Your task to perform on an android device: toggle javascript in the chrome app Image 0: 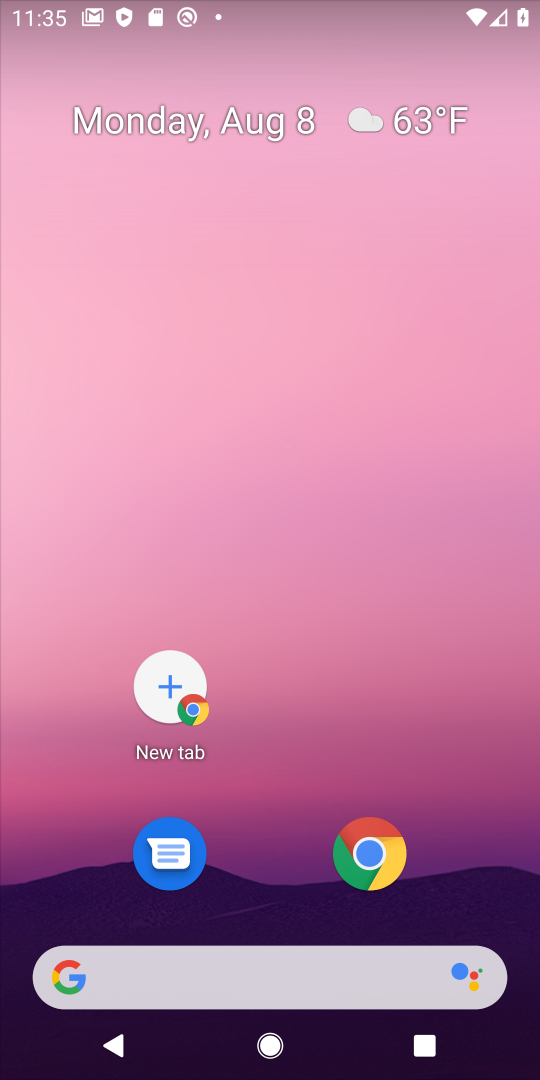
Step 0: click (354, 865)
Your task to perform on an android device: toggle javascript in the chrome app Image 1: 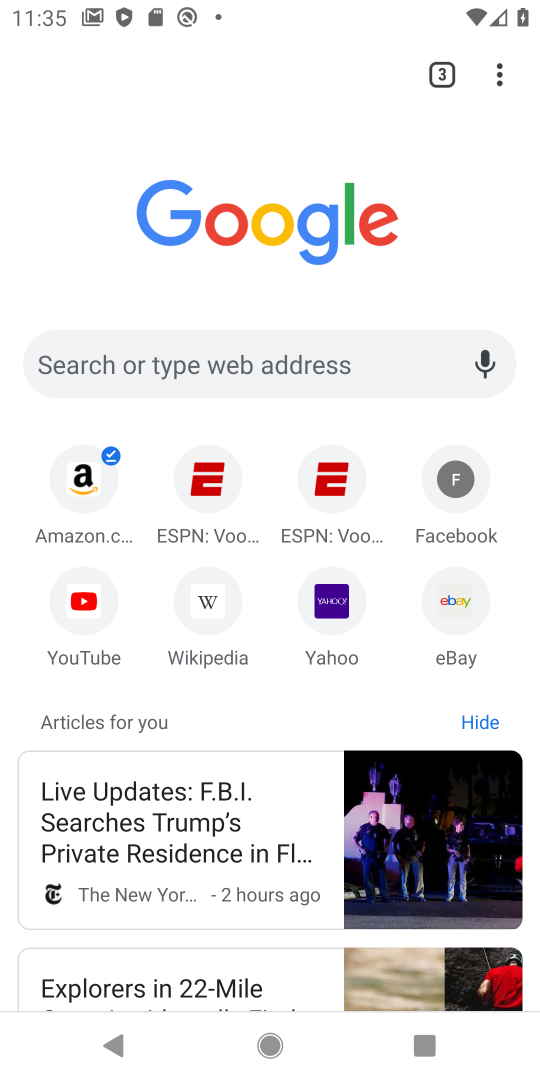
Step 1: click (505, 76)
Your task to perform on an android device: toggle javascript in the chrome app Image 2: 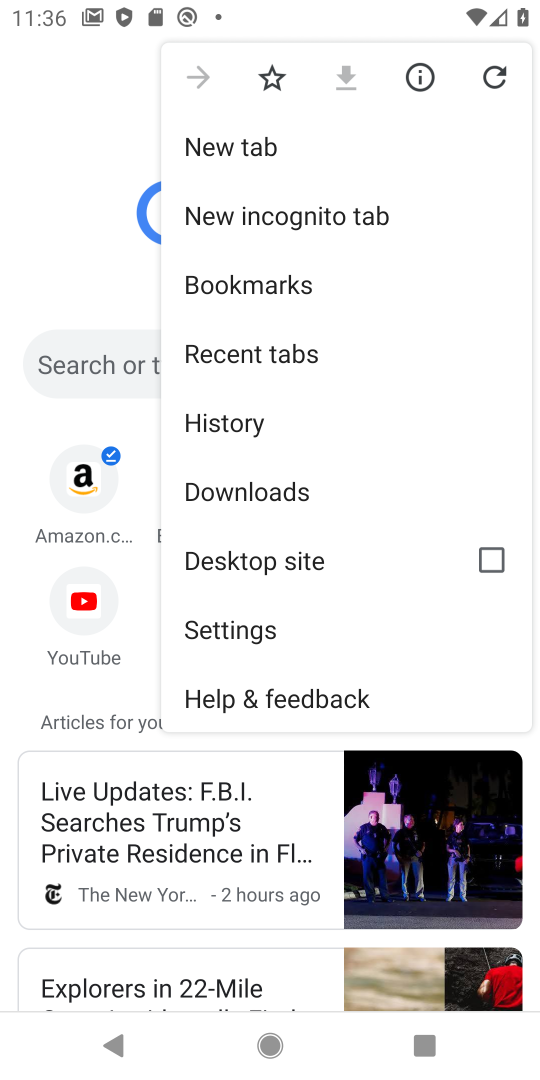
Step 2: click (254, 628)
Your task to perform on an android device: toggle javascript in the chrome app Image 3: 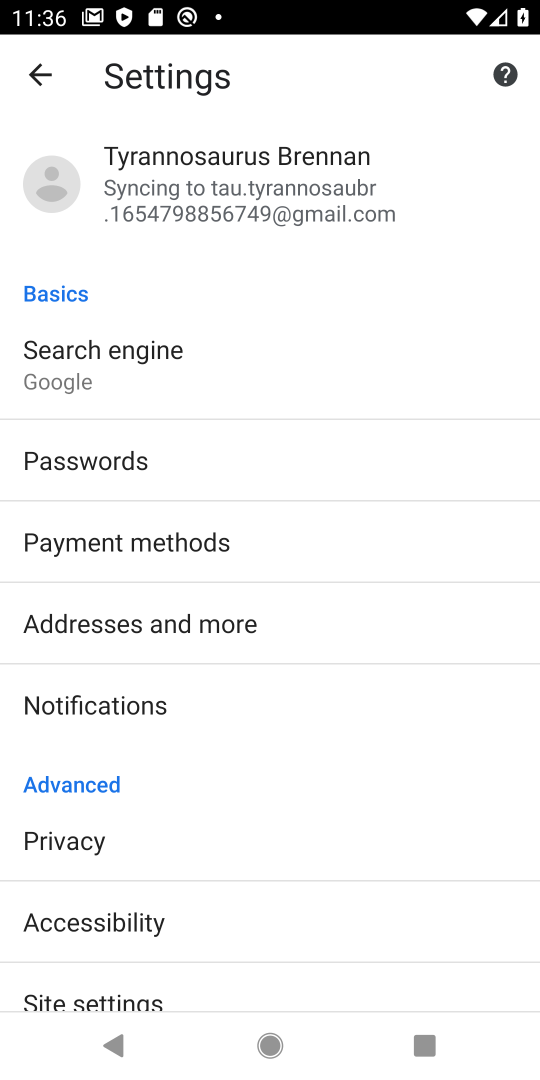
Step 3: click (74, 991)
Your task to perform on an android device: toggle javascript in the chrome app Image 4: 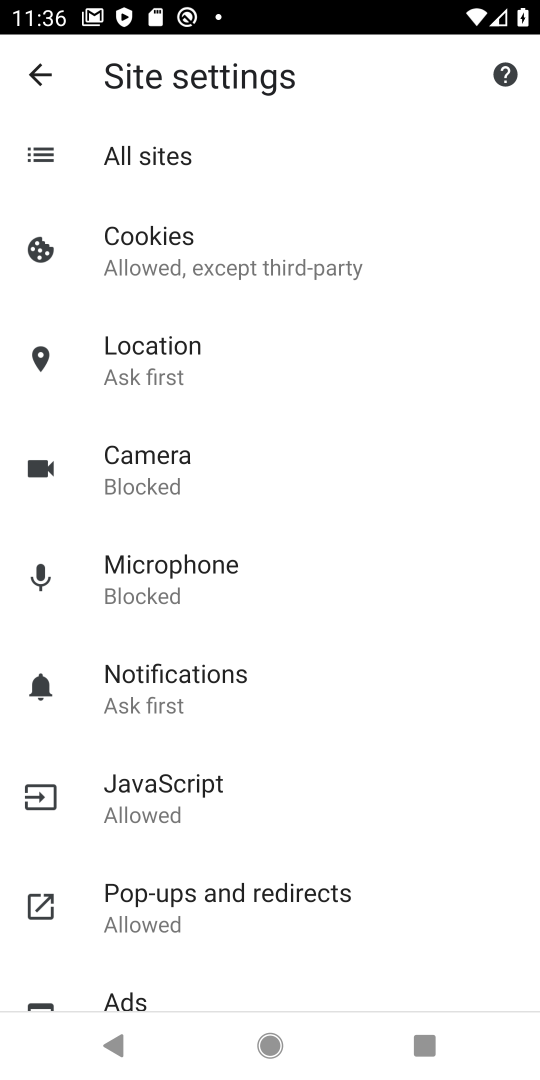
Step 4: click (166, 803)
Your task to perform on an android device: toggle javascript in the chrome app Image 5: 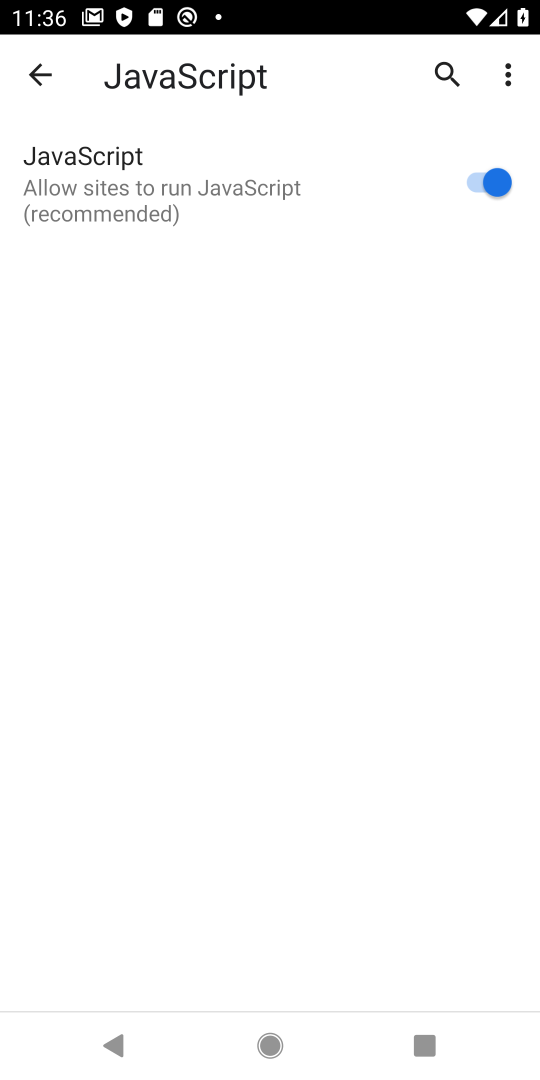
Step 5: click (479, 179)
Your task to perform on an android device: toggle javascript in the chrome app Image 6: 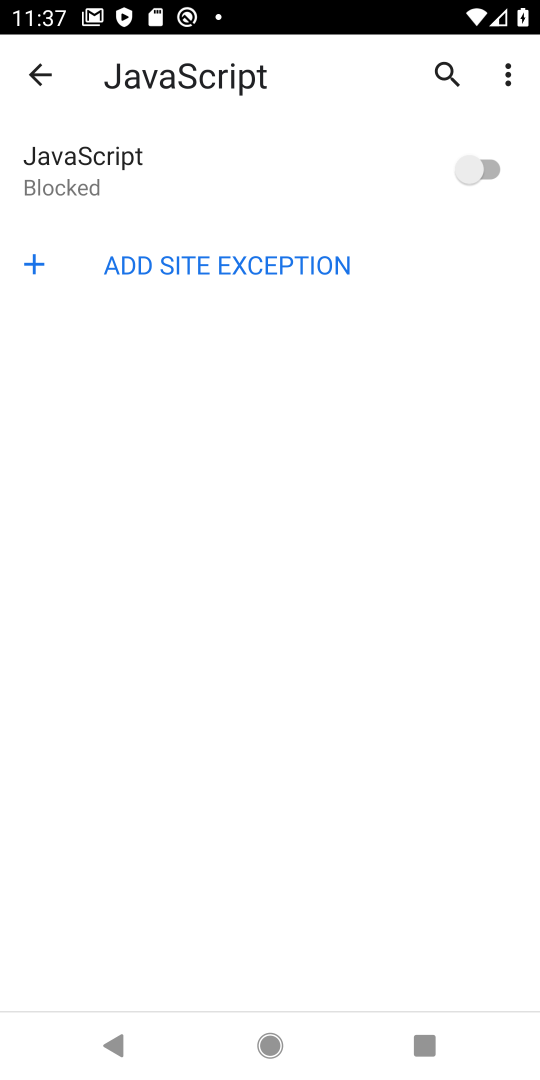
Step 6: task complete